Your task to perform on an android device: Open Chrome and go to settings Image 0: 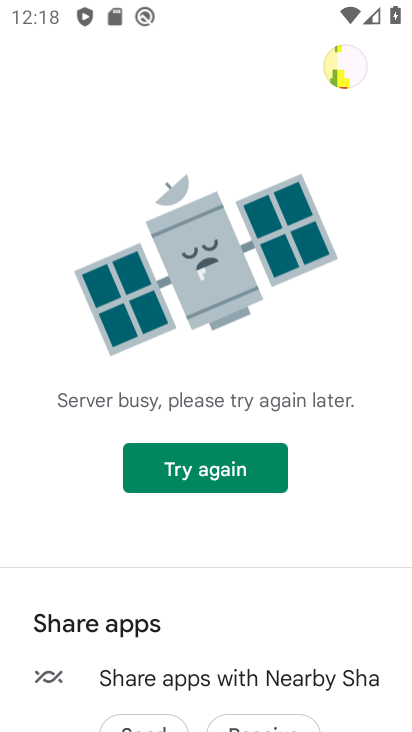
Step 0: press home button
Your task to perform on an android device: Open Chrome and go to settings Image 1: 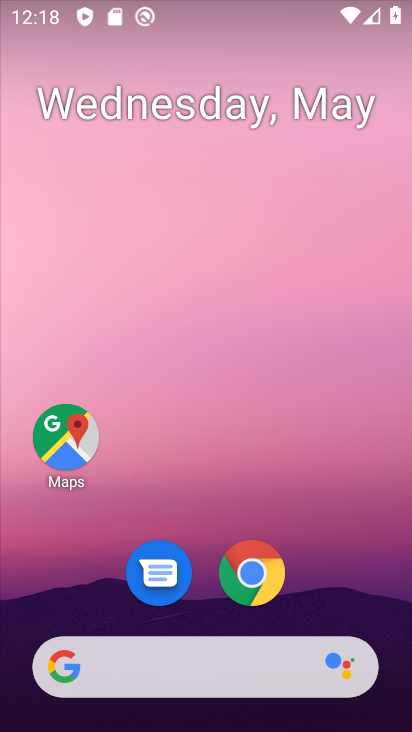
Step 1: click (253, 582)
Your task to perform on an android device: Open Chrome and go to settings Image 2: 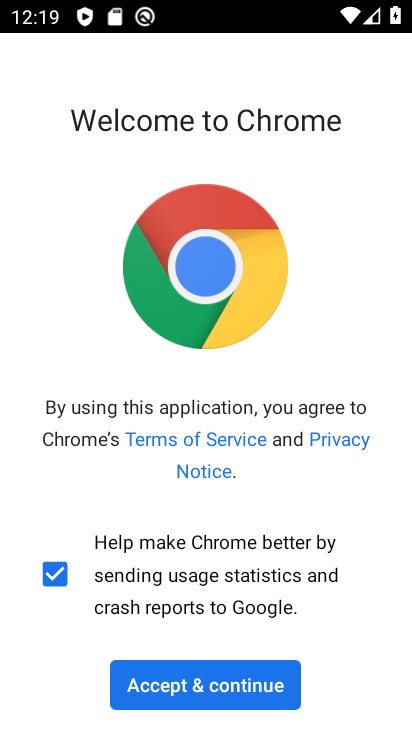
Step 2: click (236, 669)
Your task to perform on an android device: Open Chrome and go to settings Image 3: 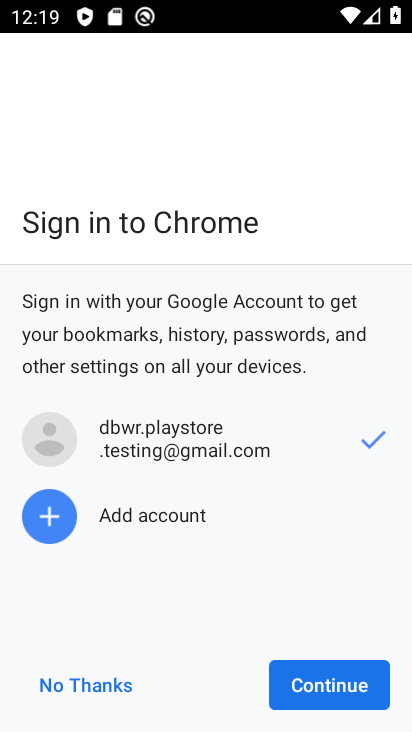
Step 3: click (315, 684)
Your task to perform on an android device: Open Chrome and go to settings Image 4: 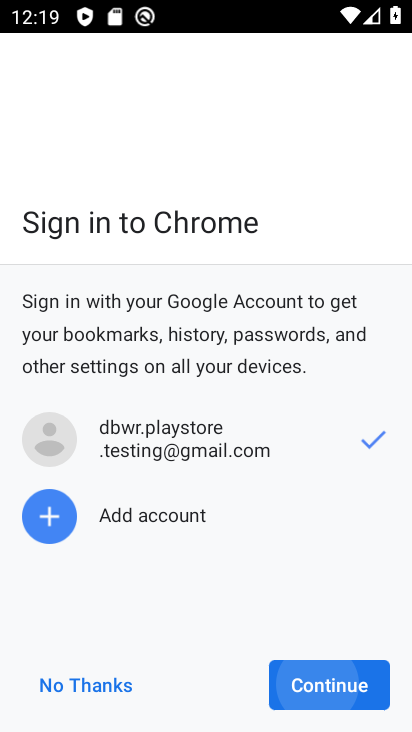
Step 4: click (343, 680)
Your task to perform on an android device: Open Chrome and go to settings Image 5: 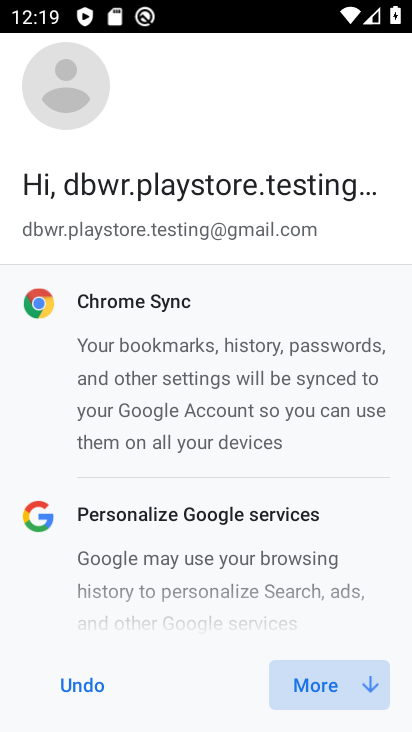
Step 5: click (343, 680)
Your task to perform on an android device: Open Chrome and go to settings Image 6: 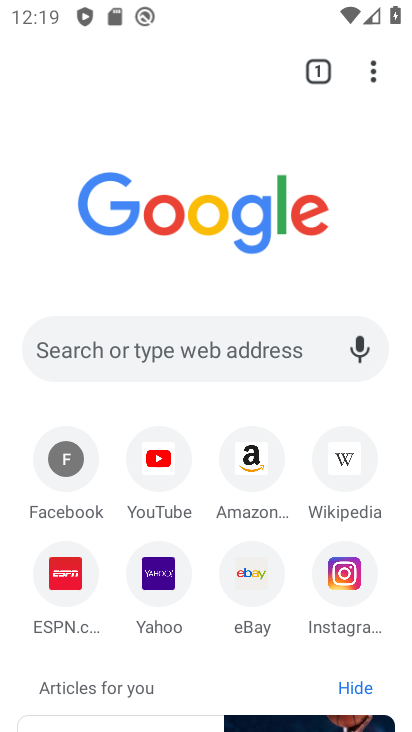
Step 6: task complete